Your task to perform on an android device: manage bookmarks in the chrome app Image 0: 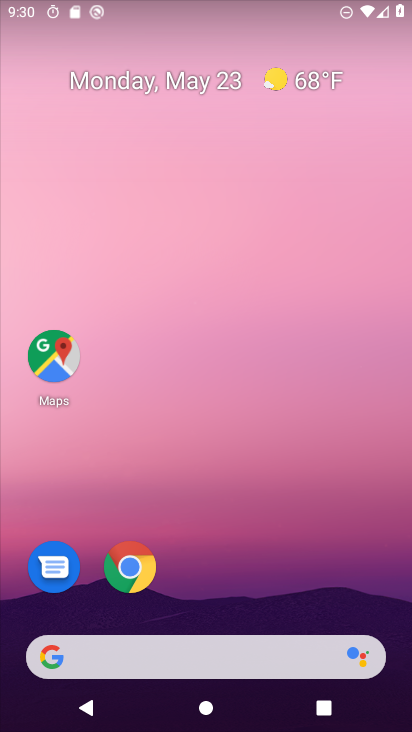
Step 0: drag from (188, 591) to (5, 384)
Your task to perform on an android device: manage bookmarks in the chrome app Image 1: 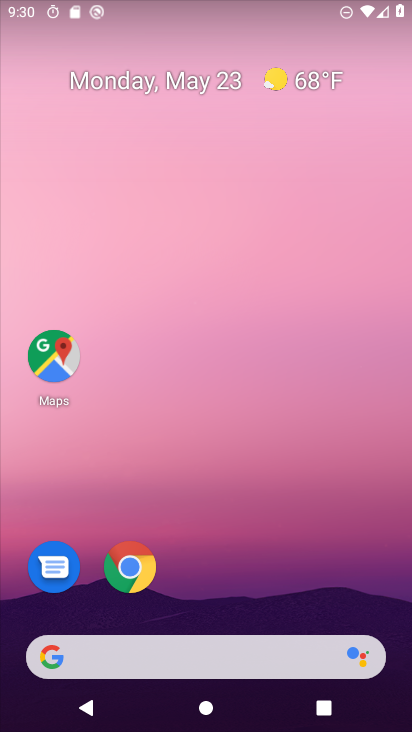
Step 1: drag from (183, 621) to (209, 89)
Your task to perform on an android device: manage bookmarks in the chrome app Image 2: 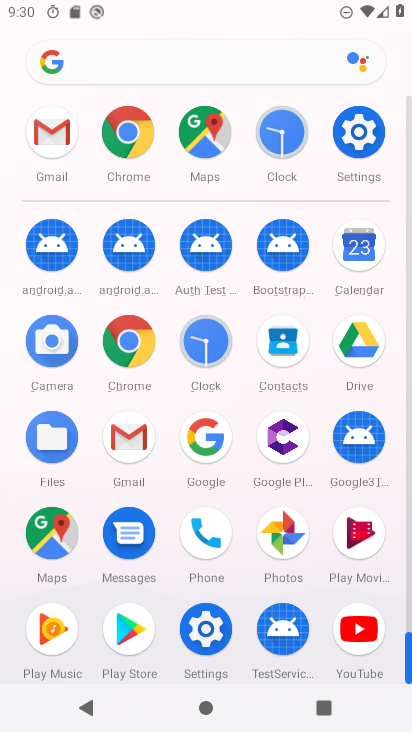
Step 2: click (135, 342)
Your task to perform on an android device: manage bookmarks in the chrome app Image 3: 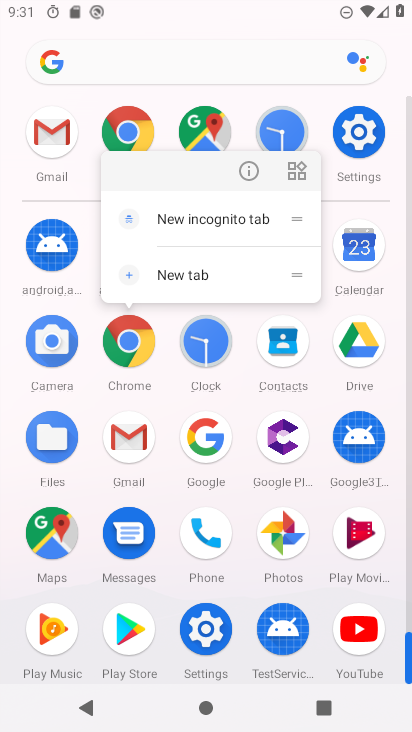
Step 3: click (255, 167)
Your task to perform on an android device: manage bookmarks in the chrome app Image 4: 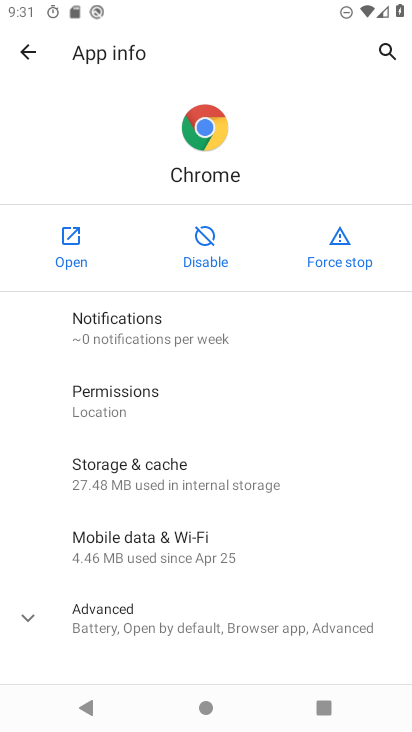
Step 4: click (53, 246)
Your task to perform on an android device: manage bookmarks in the chrome app Image 5: 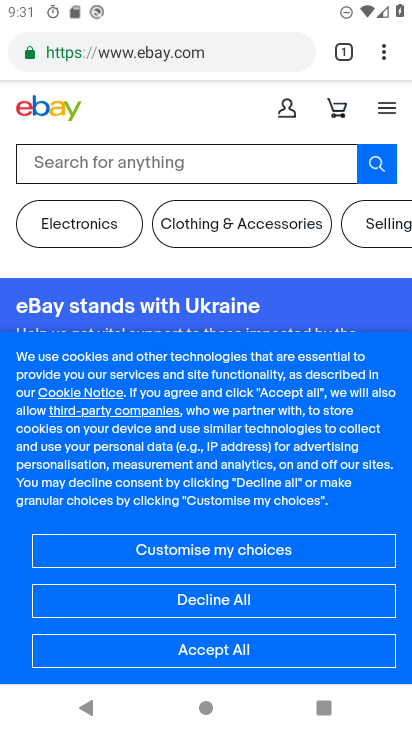
Step 5: click (384, 58)
Your task to perform on an android device: manage bookmarks in the chrome app Image 6: 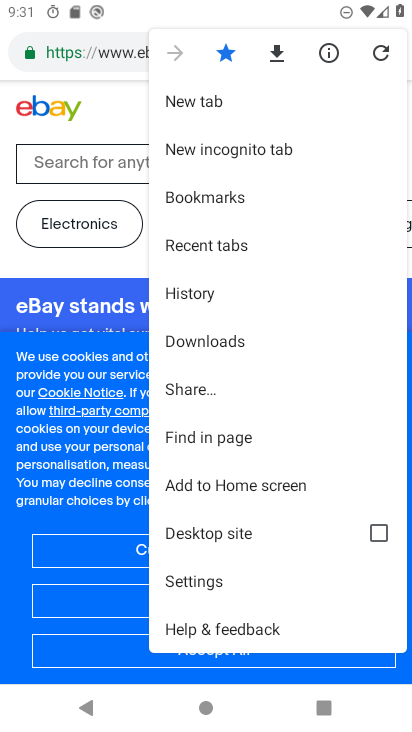
Step 6: click (242, 206)
Your task to perform on an android device: manage bookmarks in the chrome app Image 7: 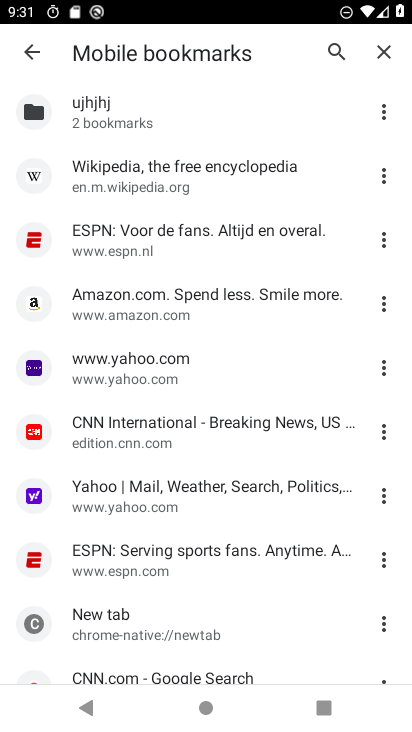
Step 7: task complete